Your task to perform on an android device: set an alarm Image 0: 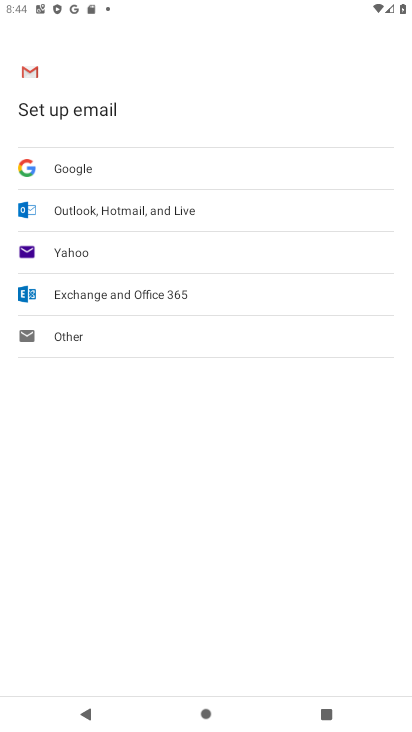
Step 0: press home button
Your task to perform on an android device: set an alarm Image 1: 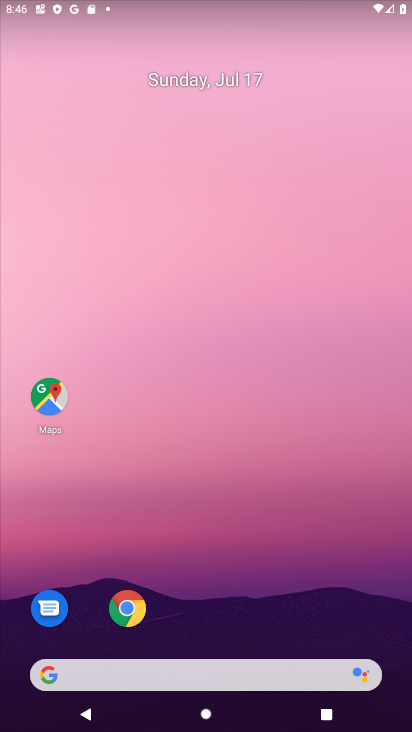
Step 1: drag from (177, 657) to (144, 80)
Your task to perform on an android device: set an alarm Image 2: 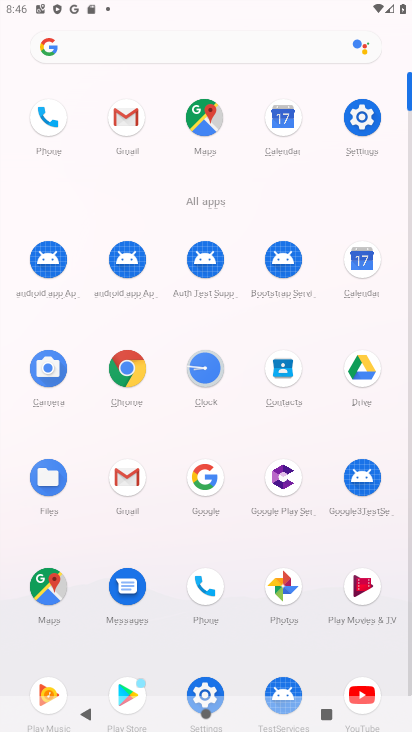
Step 2: click (202, 369)
Your task to perform on an android device: set an alarm Image 3: 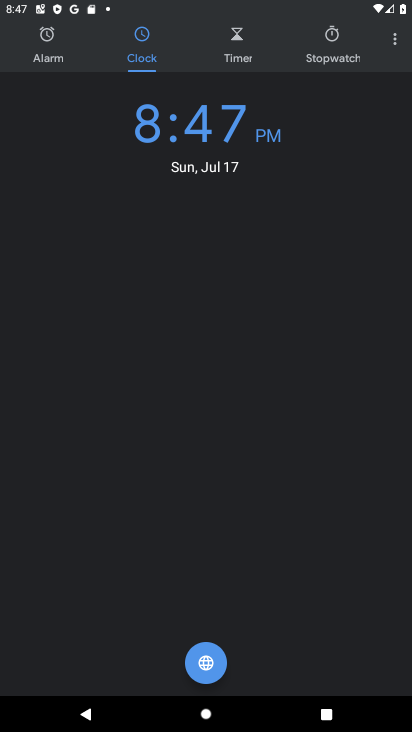
Step 3: click (58, 55)
Your task to perform on an android device: set an alarm Image 4: 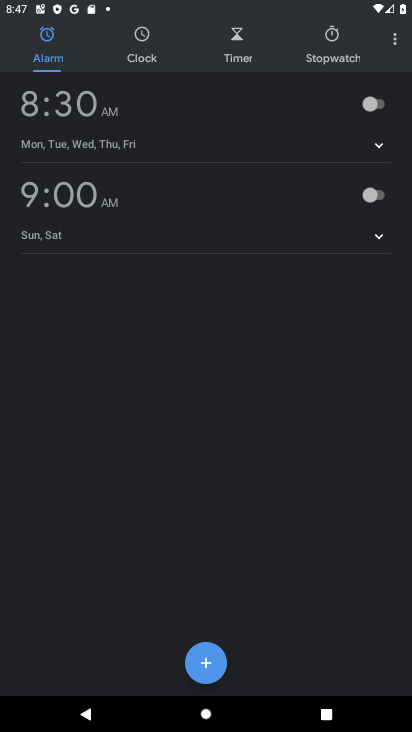
Step 4: click (196, 672)
Your task to perform on an android device: set an alarm Image 5: 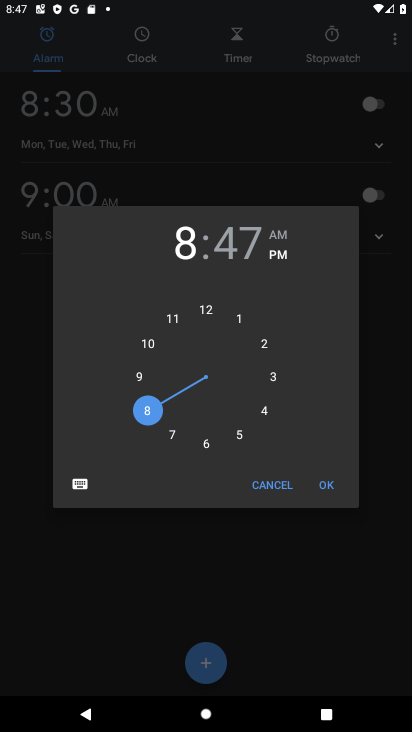
Step 5: click (246, 436)
Your task to perform on an android device: set an alarm Image 6: 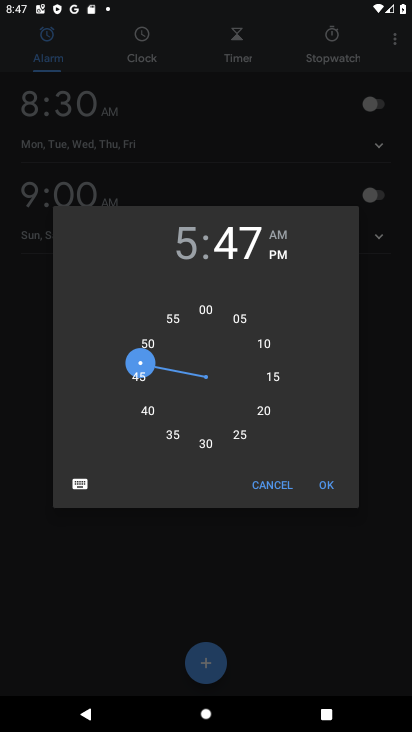
Step 6: click (208, 314)
Your task to perform on an android device: set an alarm Image 7: 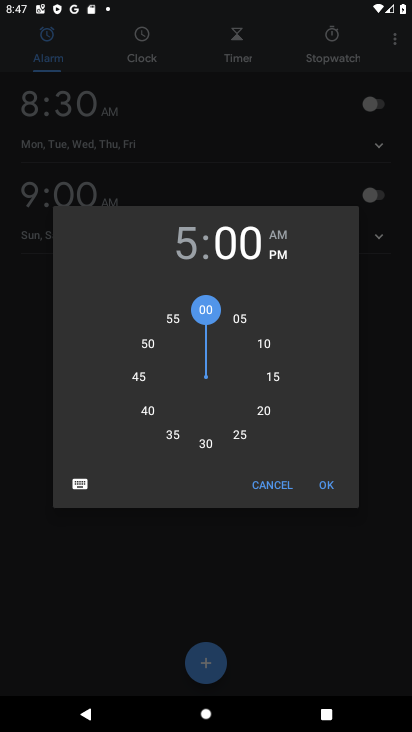
Step 7: task complete